Your task to perform on an android device: turn on the 24-hour format for clock Image 0: 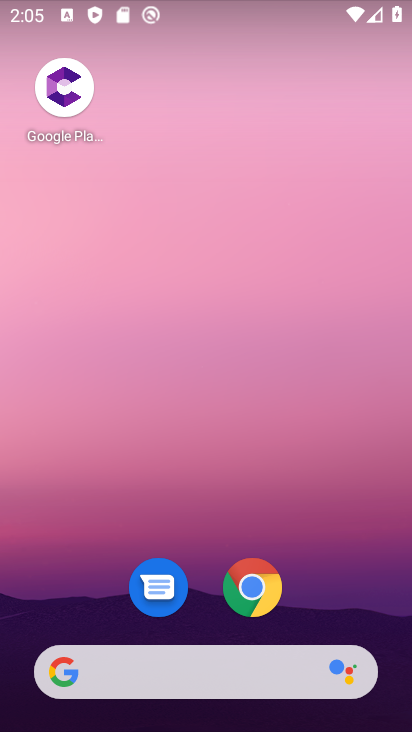
Step 0: drag from (251, 720) to (302, 223)
Your task to perform on an android device: turn on the 24-hour format for clock Image 1: 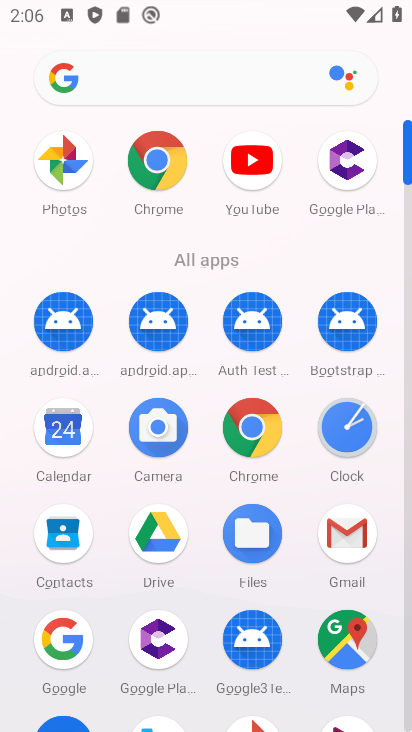
Step 1: drag from (311, 641) to (315, 114)
Your task to perform on an android device: turn on the 24-hour format for clock Image 2: 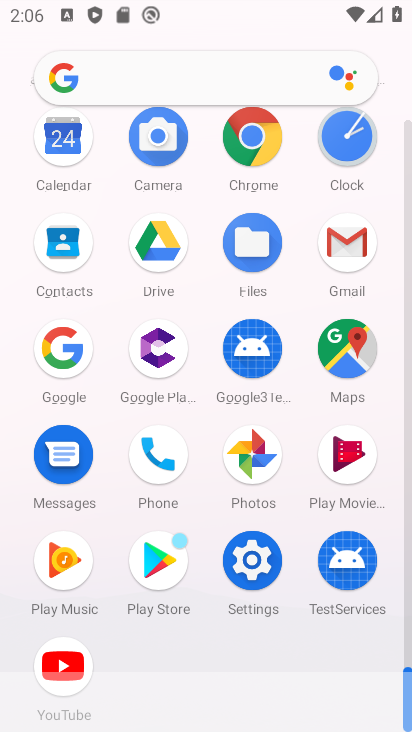
Step 2: click (352, 140)
Your task to perform on an android device: turn on the 24-hour format for clock Image 3: 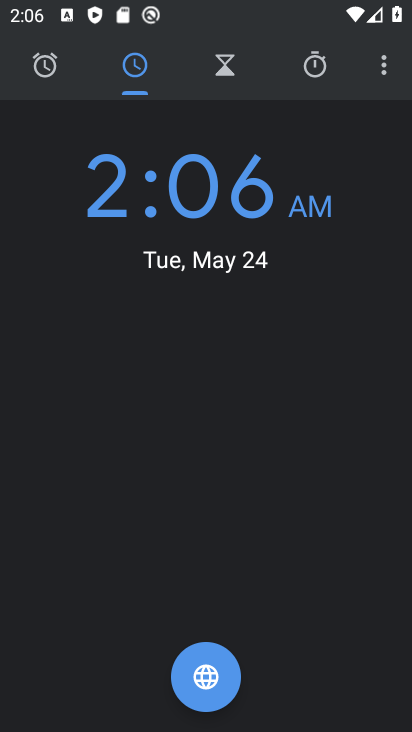
Step 3: click (377, 60)
Your task to perform on an android device: turn on the 24-hour format for clock Image 4: 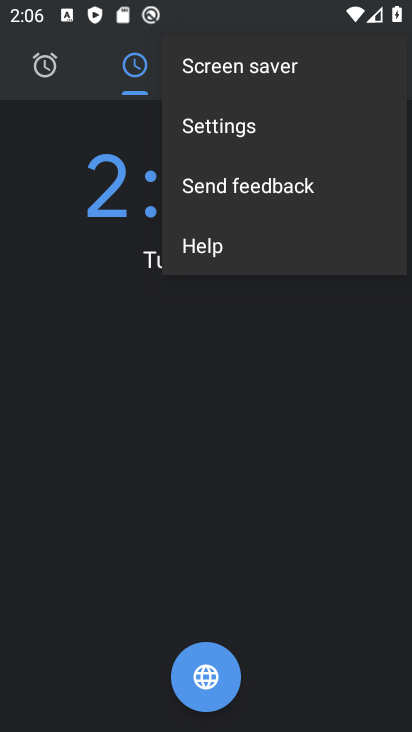
Step 4: click (322, 132)
Your task to perform on an android device: turn on the 24-hour format for clock Image 5: 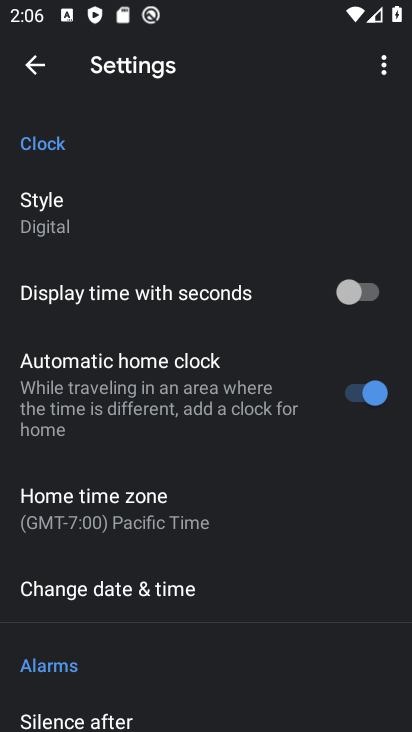
Step 5: click (271, 591)
Your task to perform on an android device: turn on the 24-hour format for clock Image 6: 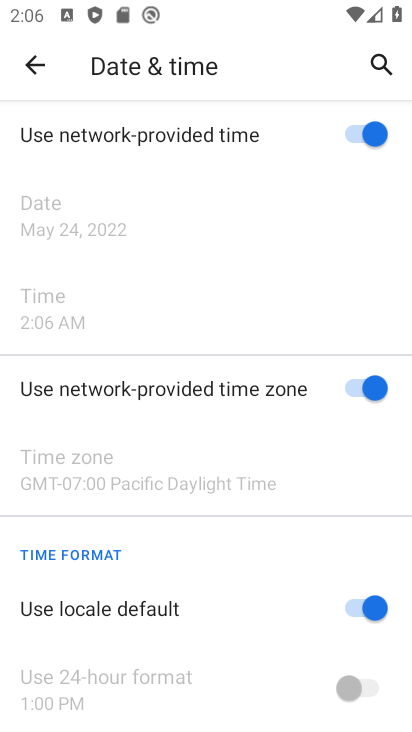
Step 6: click (370, 594)
Your task to perform on an android device: turn on the 24-hour format for clock Image 7: 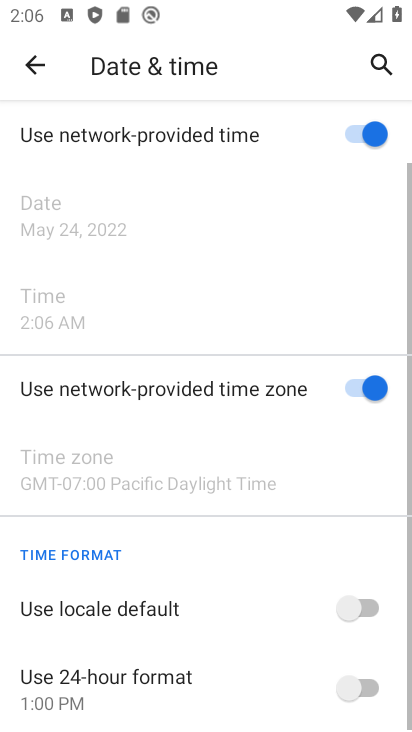
Step 7: click (364, 686)
Your task to perform on an android device: turn on the 24-hour format for clock Image 8: 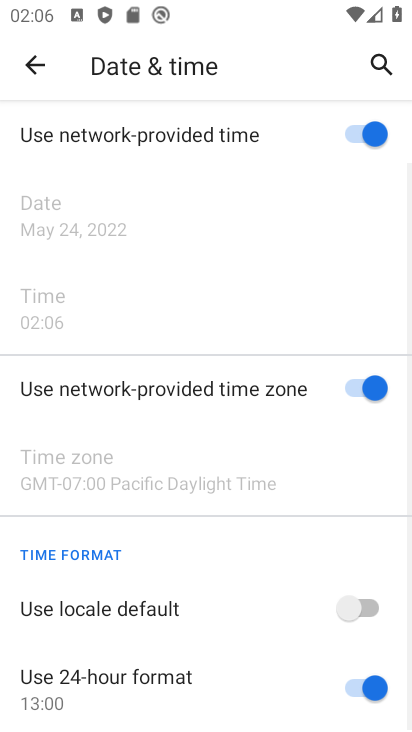
Step 8: task complete